Your task to perform on an android device: find which apps use the phone's location Image 0: 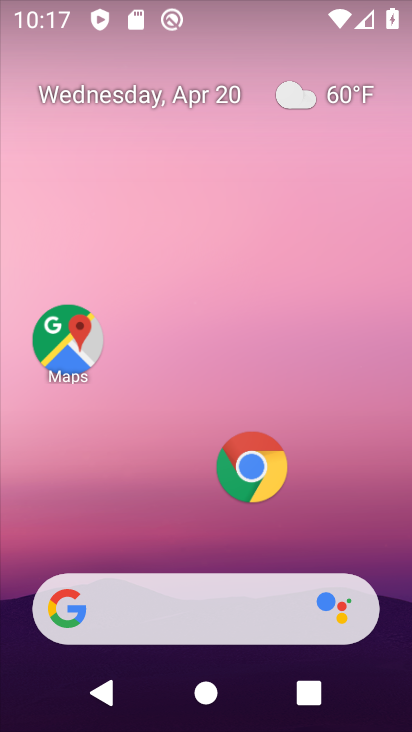
Step 0: drag from (305, 515) to (334, 176)
Your task to perform on an android device: find which apps use the phone's location Image 1: 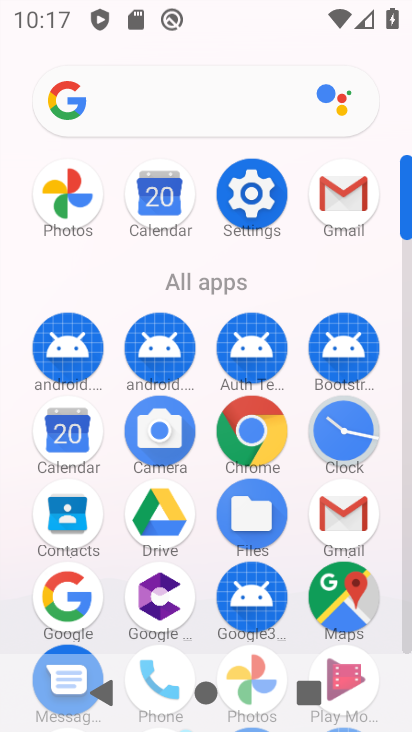
Step 1: click (240, 177)
Your task to perform on an android device: find which apps use the phone's location Image 2: 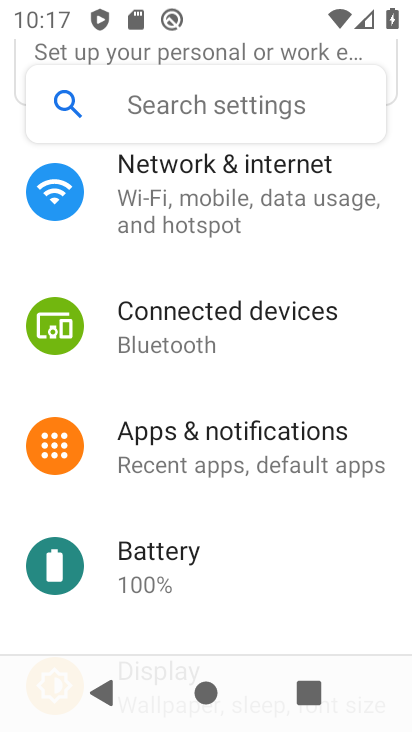
Step 2: drag from (236, 377) to (241, 318)
Your task to perform on an android device: find which apps use the phone's location Image 3: 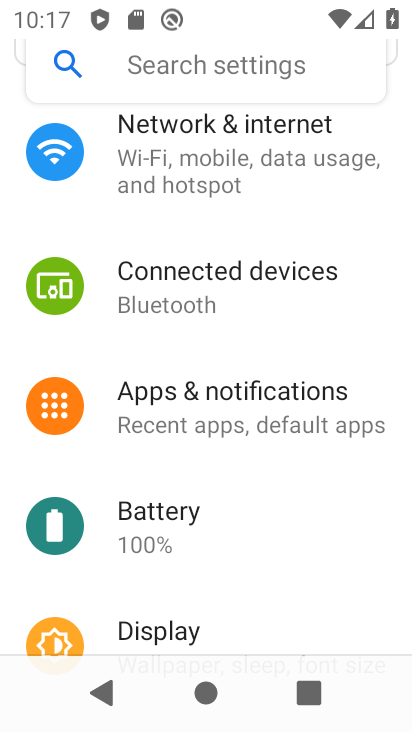
Step 3: drag from (248, 408) to (240, 339)
Your task to perform on an android device: find which apps use the phone's location Image 4: 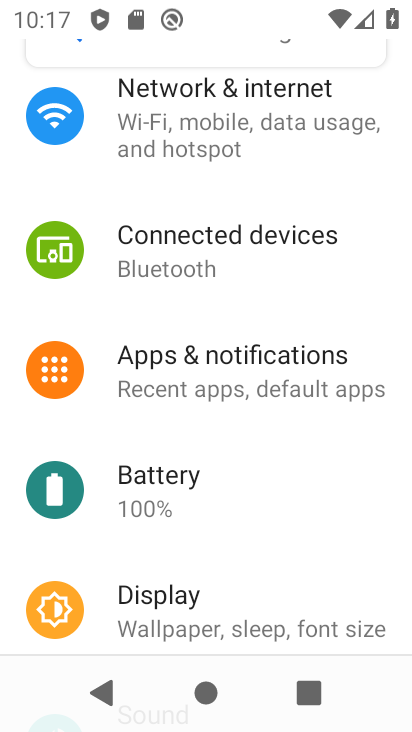
Step 4: drag from (290, 443) to (279, 368)
Your task to perform on an android device: find which apps use the phone's location Image 5: 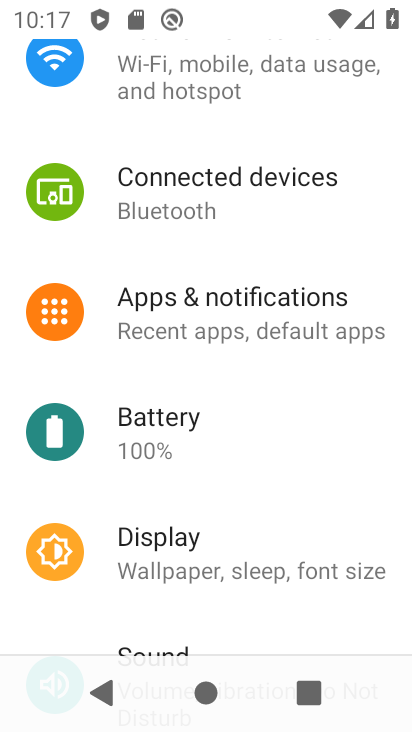
Step 5: drag from (302, 434) to (291, 373)
Your task to perform on an android device: find which apps use the phone's location Image 6: 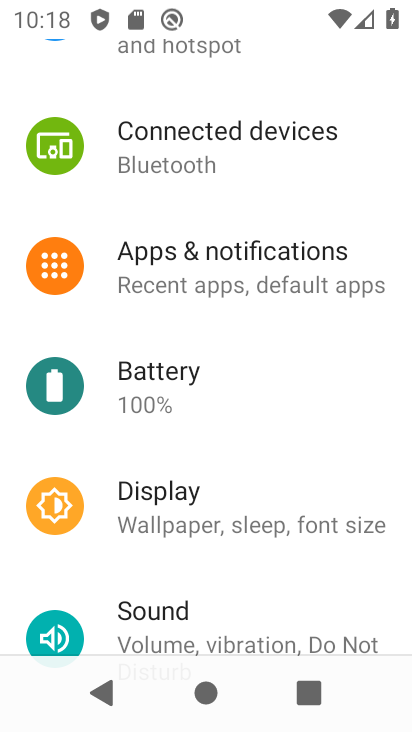
Step 6: drag from (303, 422) to (302, 355)
Your task to perform on an android device: find which apps use the phone's location Image 7: 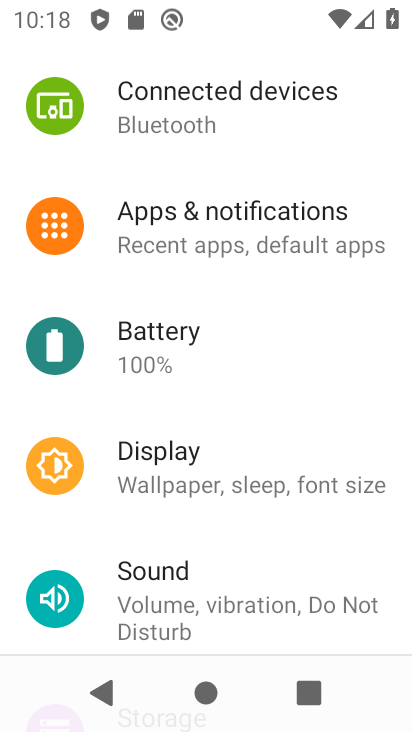
Step 7: drag from (318, 477) to (294, 401)
Your task to perform on an android device: find which apps use the phone's location Image 8: 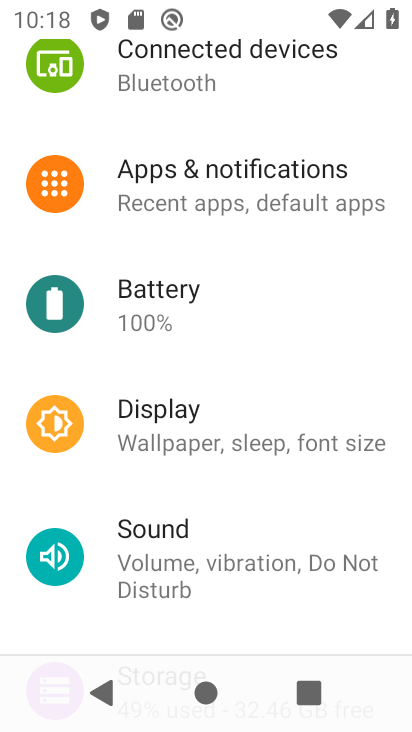
Step 8: drag from (311, 446) to (294, 379)
Your task to perform on an android device: find which apps use the phone's location Image 9: 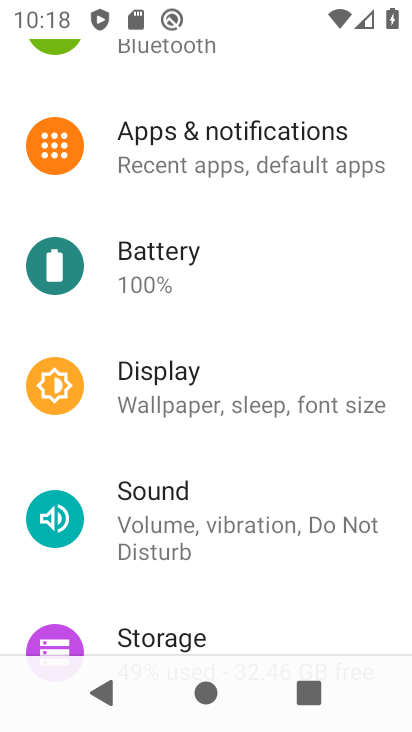
Step 9: drag from (305, 438) to (293, 377)
Your task to perform on an android device: find which apps use the phone's location Image 10: 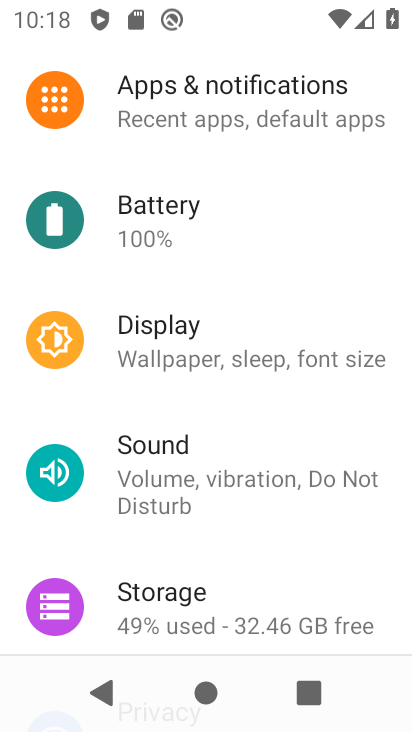
Step 10: drag from (304, 450) to (299, 388)
Your task to perform on an android device: find which apps use the phone's location Image 11: 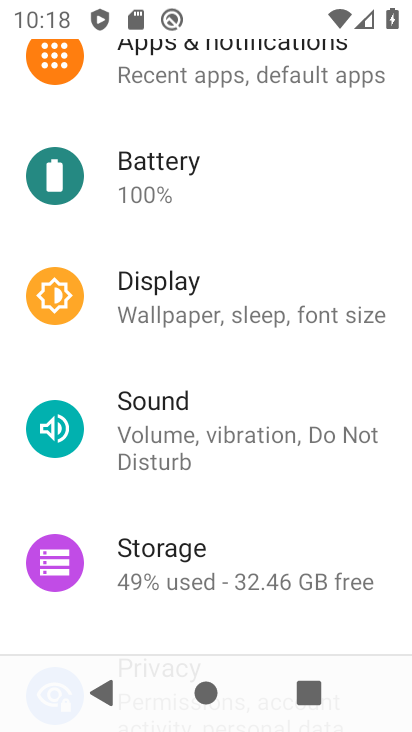
Step 11: drag from (303, 439) to (297, 380)
Your task to perform on an android device: find which apps use the phone's location Image 12: 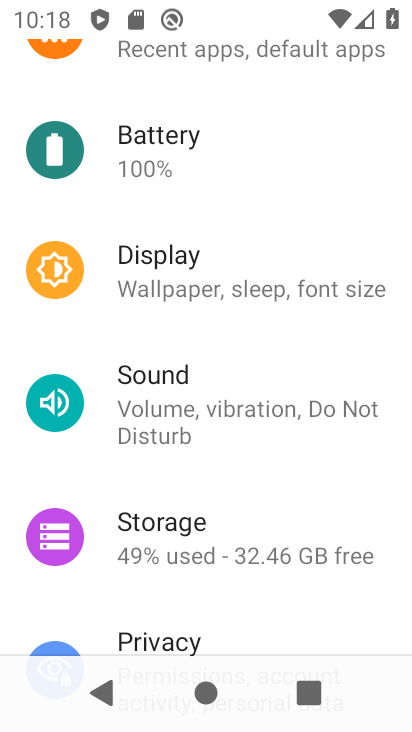
Step 12: drag from (310, 409) to (307, 347)
Your task to perform on an android device: find which apps use the phone's location Image 13: 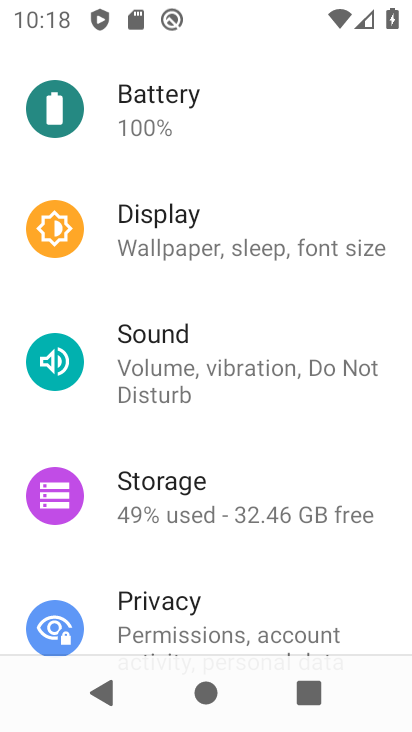
Step 13: drag from (322, 437) to (315, 365)
Your task to perform on an android device: find which apps use the phone's location Image 14: 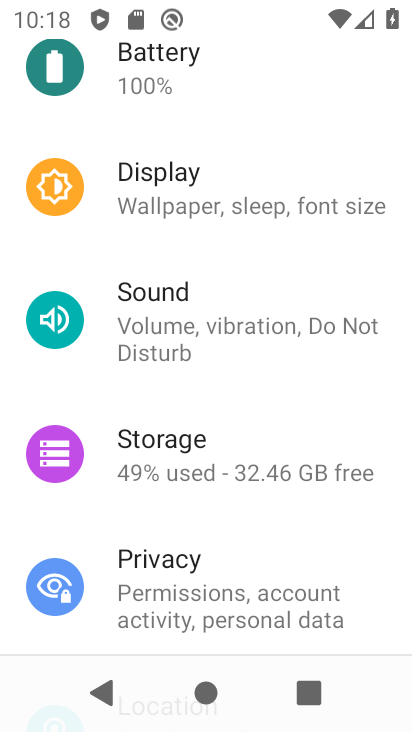
Step 14: drag from (305, 449) to (302, 369)
Your task to perform on an android device: find which apps use the phone's location Image 15: 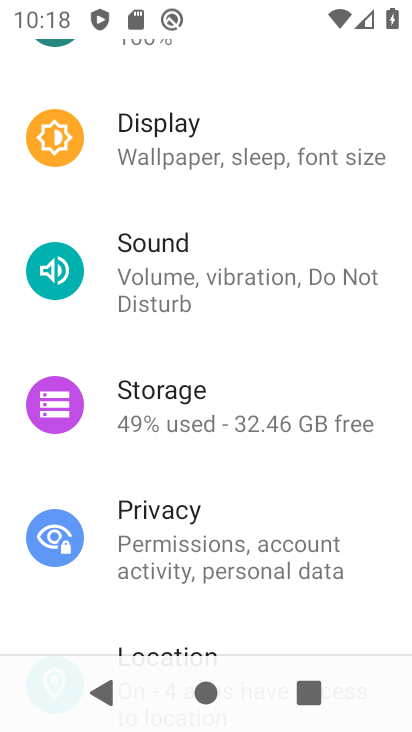
Step 15: drag from (281, 485) to (273, 390)
Your task to perform on an android device: find which apps use the phone's location Image 16: 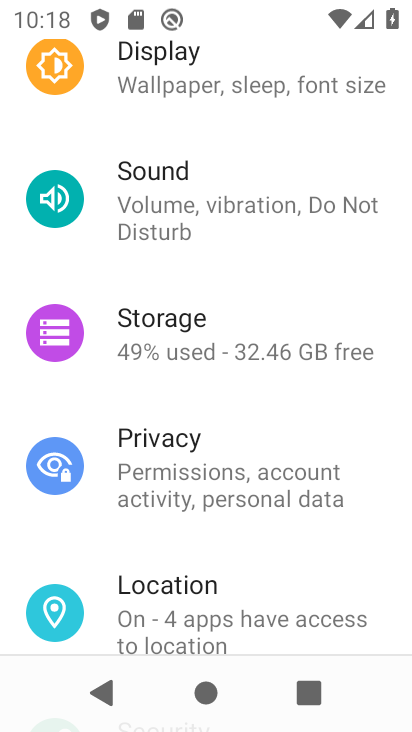
Step 16: drag from (256, 503) to (243, 427)
Your task to perform on an android device: find which apps use the phone's location Image 17: 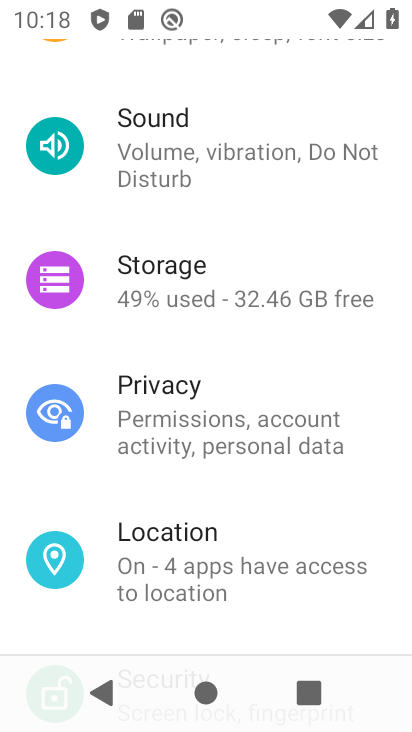
Step 17: click (166, 580)
Your task to perform on an android device: find which apps use the phone's location Image 18: 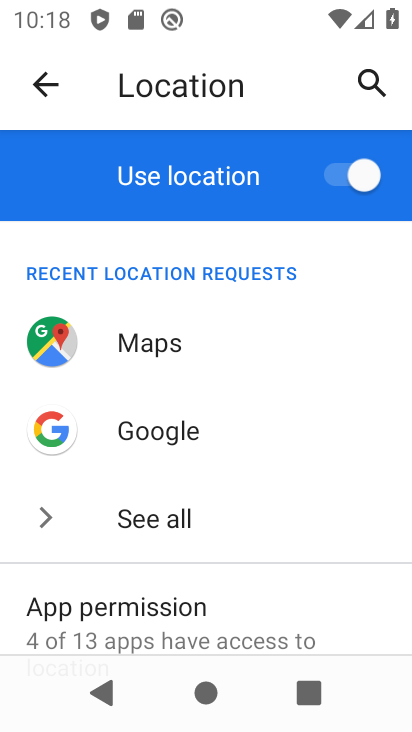
Step 18: click (130, 613)
Your task to perform on an android device: find which apps use the phone's location Image 19: 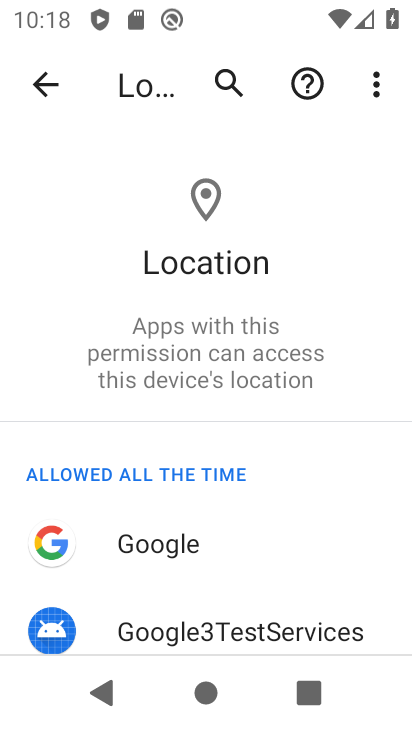
Step 19: task complete